Your task to perform on an android device: open wifi settings Image 0: 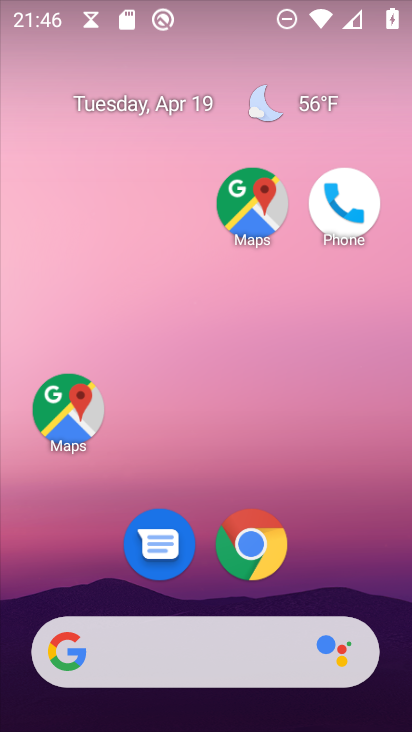
Step 0: drag from (177, 629) to (309, 164)
Your task to perform on an android device: open wifi settings Image 1: 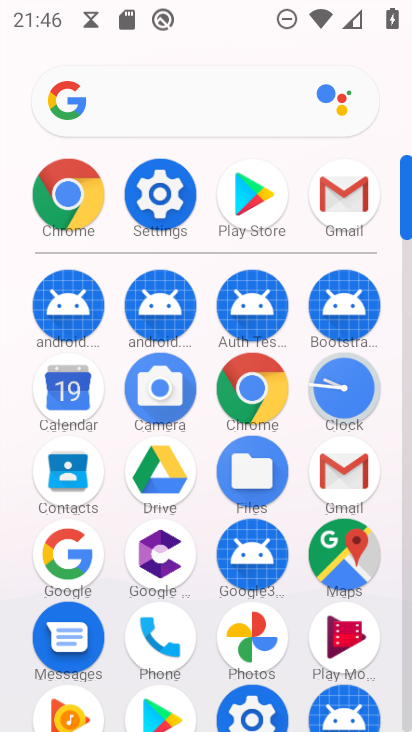
Step 1: click (170, 206)
Your task to perform on an android device: open wifi settings Image 2: 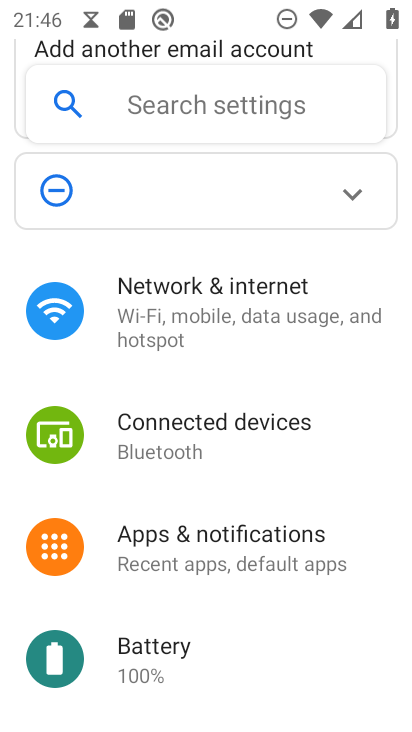
Step 2: click (184, 285)
Your task to perform on an android device: open wifi settings Image 3: 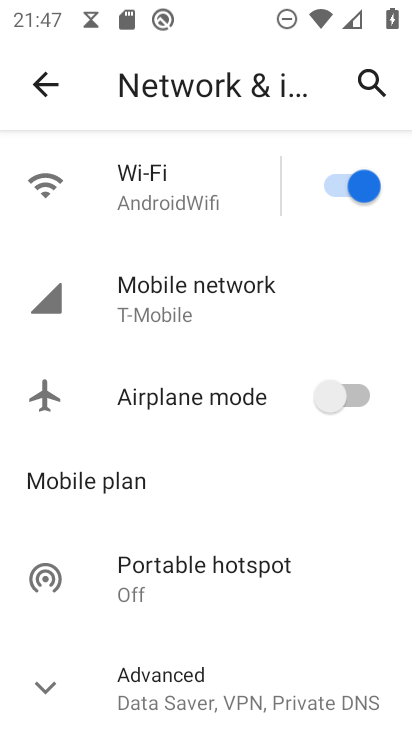
Step 3: click (177, 201)
Your task to perform on an android device: open wifi settings Image 4: 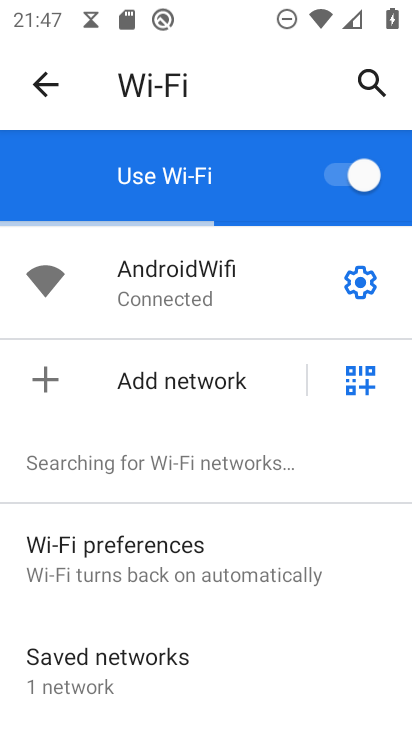
Step 4: task complete